Your task to perform on an android device: Open calendar and show me the fourth week of next month Image 0: 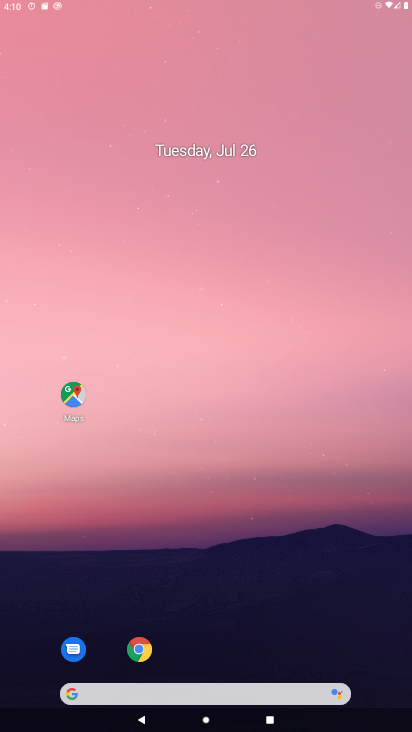
Step 0: drag from (273, 433) to (109, 42)
Your task to perform on an android device: Open calendar and show me the fourth week of next month Image 1: 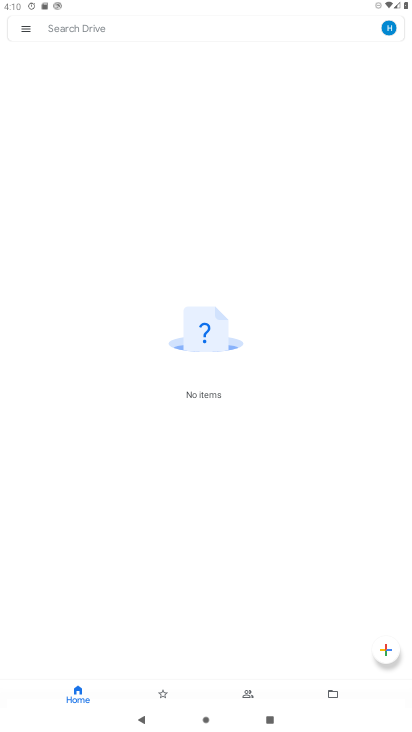
Step 1: press home button
Your task to perform on an android device: Open calendar and show me the fourth week of next month Image 2: 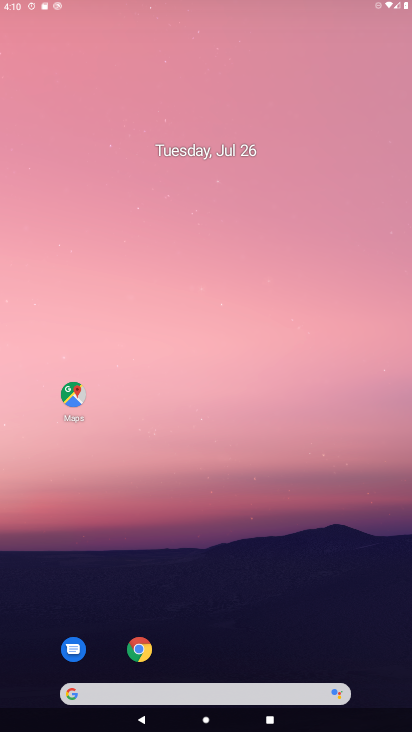
Step 2: drag from (381, 671) to (196, 90)
Your task to perform on an android device: Open calendar and show me the fourth week of next month Image 3: 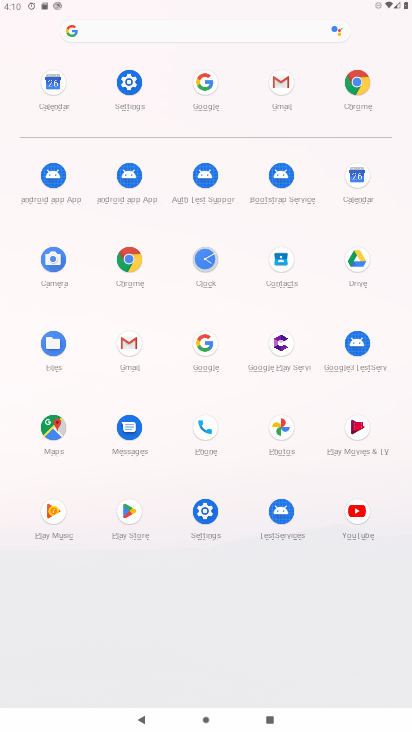
Step 3: click (356, 184)
Your task to perform on an android device: Open calendar and show me the fourth week of next month Image 4: 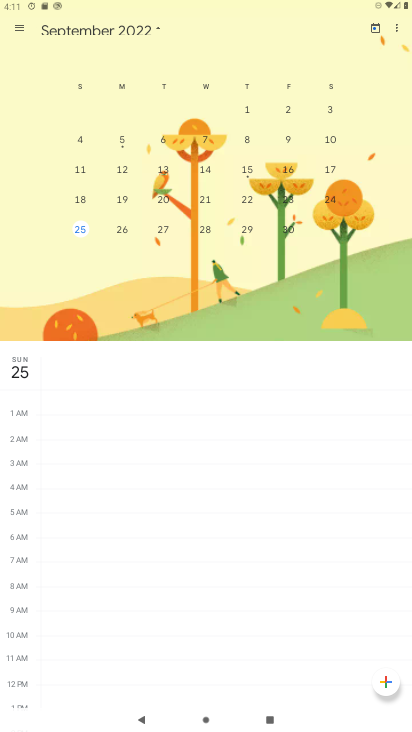
Step 4: drag from (326, 150) to (12, 170)
Your task to perform on an android device: Open calendar and show me the fourth week of next month Image 5: 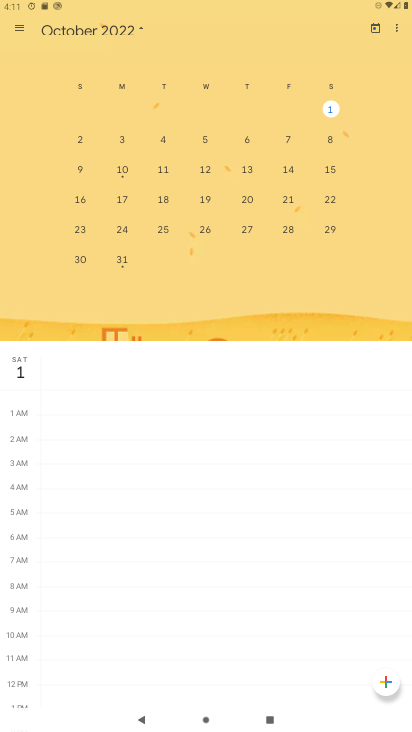
Step 5: click (82, 229)
Your task to perform on an android device: Open calendar and show me the fourth week of next month Image 6: 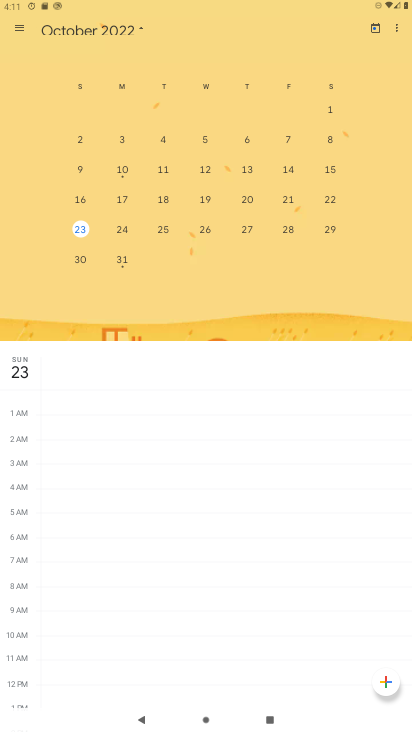
Step 6: task complete